Your task to perform on an android device: Open internet settings Image 0: 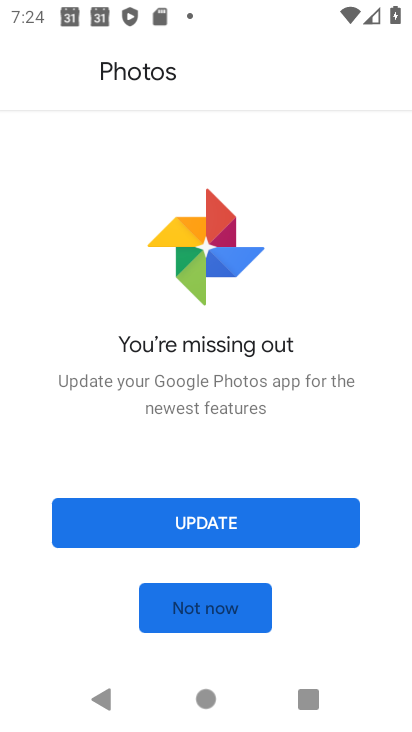
Step 0: press home button
Your task to perform on an android device: Open internet settings Image 1: 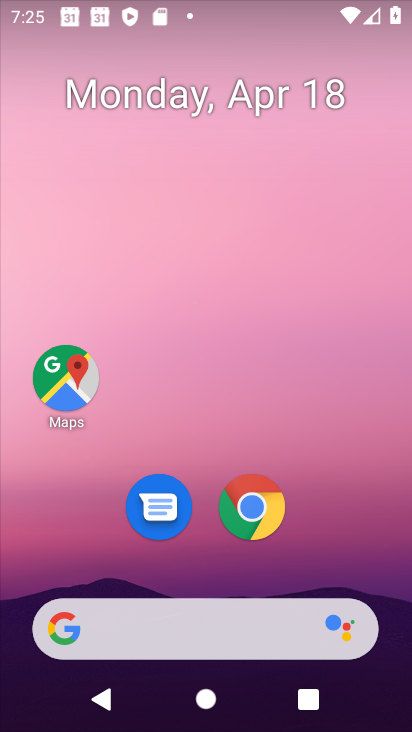
Step 1: drag from (5, 534) to (169, 88)
Your task to perform on an android device: Open internet settings Image 2: 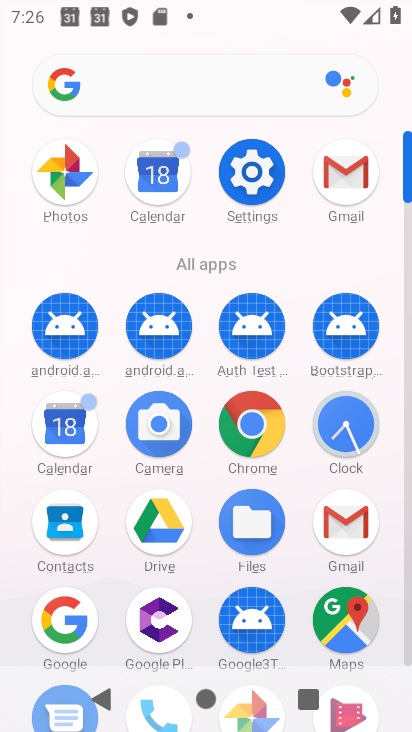
Step 2: click (270, 180)
Your task to perform on an android device: Open internet settings Image 3: 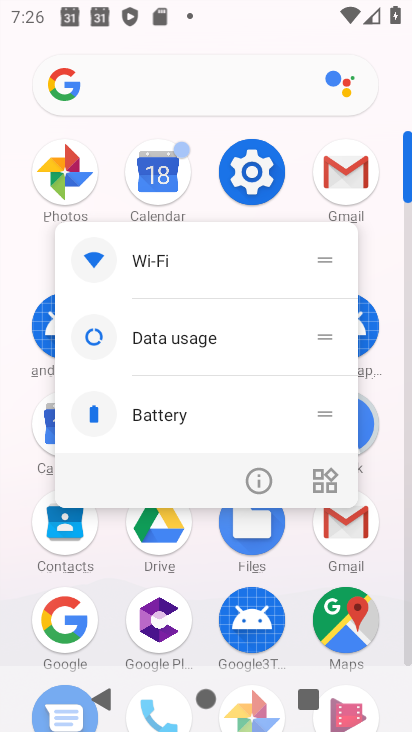
Step 3: click (270, 180)
Your task to perform on an android device: Open internet settings Image 4: 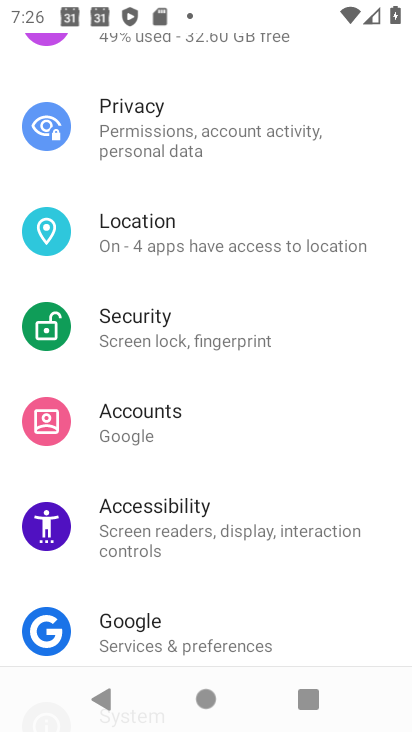
Step 4: drag from (257, 154) to (278, 573)
Your task to perform on an android device: Open internet settings Image 5: 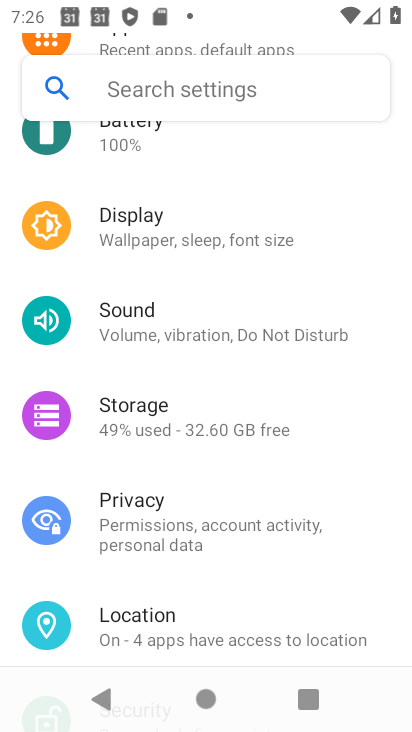
Step 5: drag from (253, 217) to (242, 609)
Your task to perform on an android device: Open internet settings Image 6: 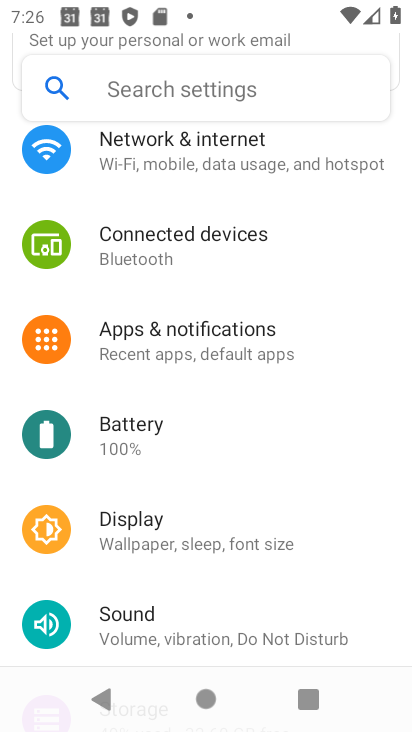
Step 6: drag from (75, 558) to (157, 391)
Your task to perform on an android device: Open internet settings Image 7: 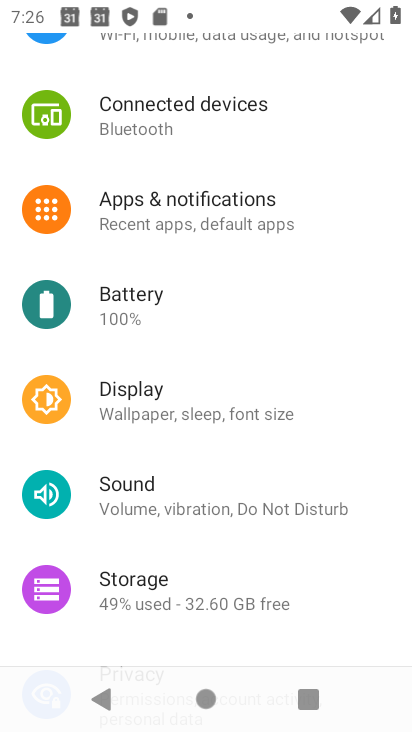
Step 7: drag from (257, 209) to (241, 539)
Your task to perform on an android device: Open internet settings Image 8: 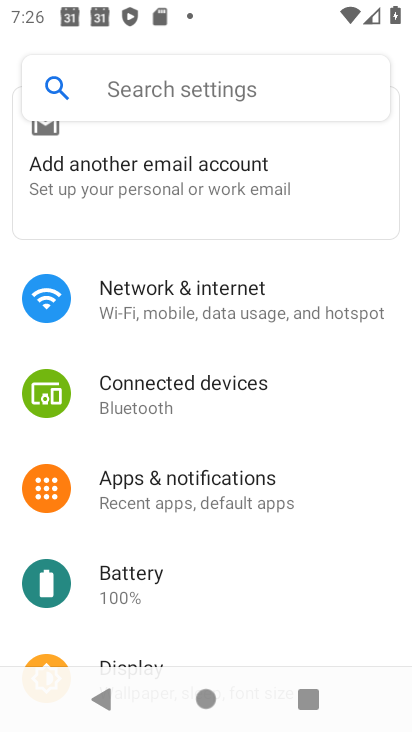
Step 8: click (200, 312)
Your task to perform on an android device: Open internet settings Image 9: 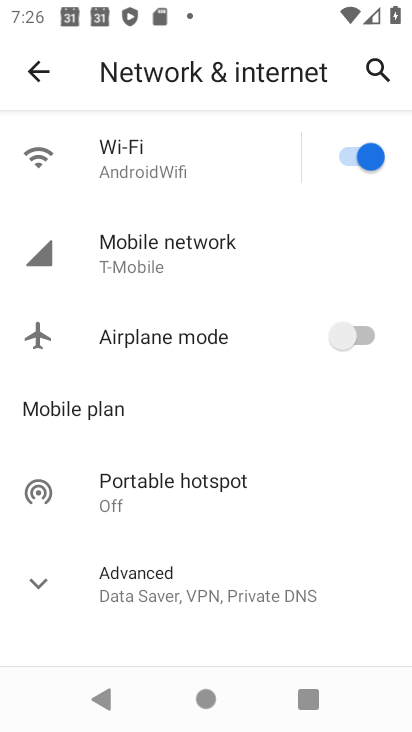
Step 9: task complete